Your task to perform on an android device: Open the stopwatch Image 0: 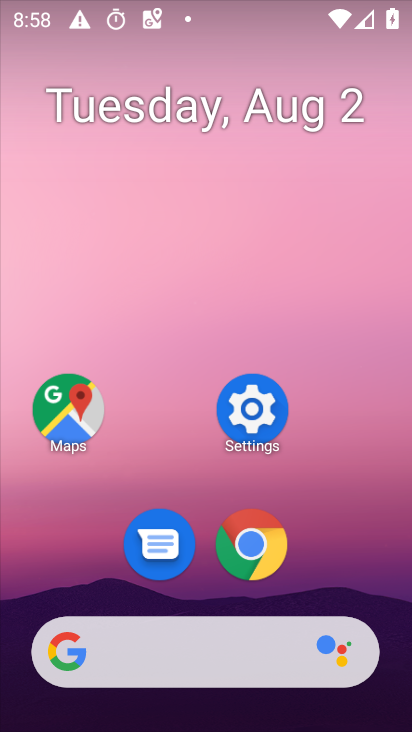
Step 0: drag from (206, 660) to (363, 52)
Your task to perform on an android device: Open the stopwatch Image 1: 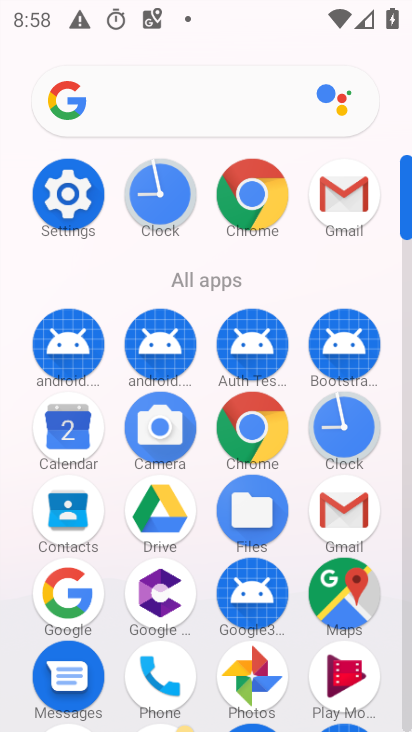
Step 1: click (334, 421)
Your task to perform on an android device: Open the stopwatch Image 2: 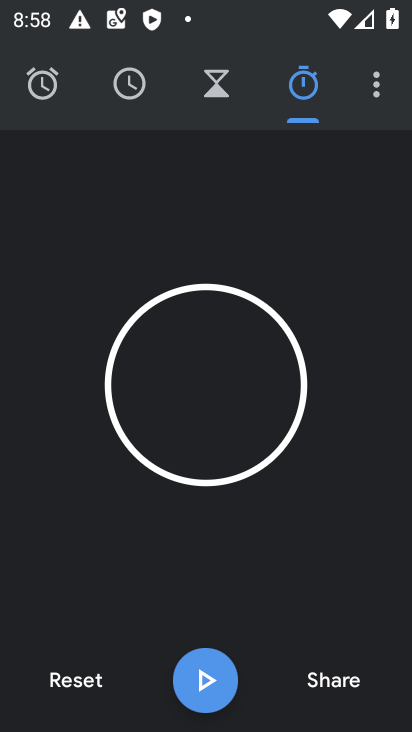
Step 2: task complete